Your task to perform on an android device: Do I have any events tomorrow? Image 0: 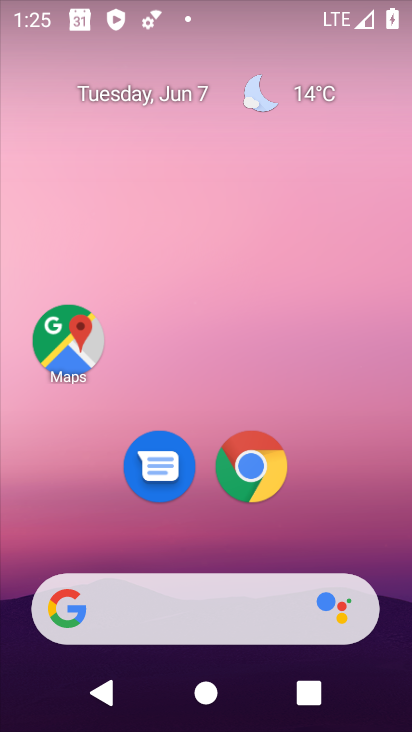
Step 0: drag from (169, 560) to (224, 124)
Your task to perform on an android device: Do I have any events tomorrow? Image 1: 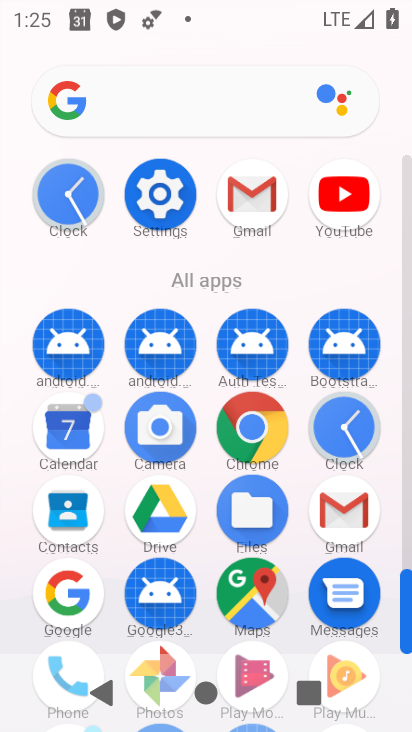
Step 1: click (69, 430)
Your task to perform on an android device: Do I have any events tomorrow? Image 2: 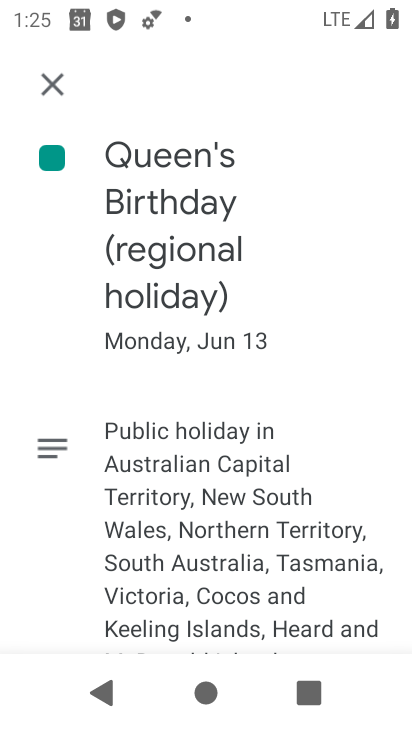
Step 2: click (48, 69)
Your task to perform on an android device: Do I have any events tomorrow? Image 3: 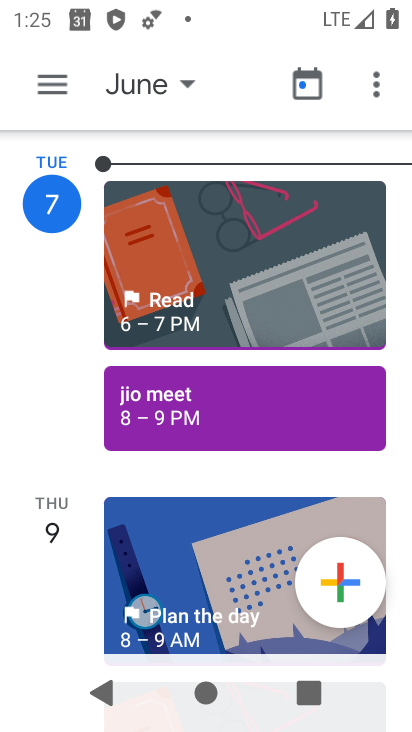
Step 3: task complete